Your task to perform on an android device: open app "LinkedIn" Image 0: 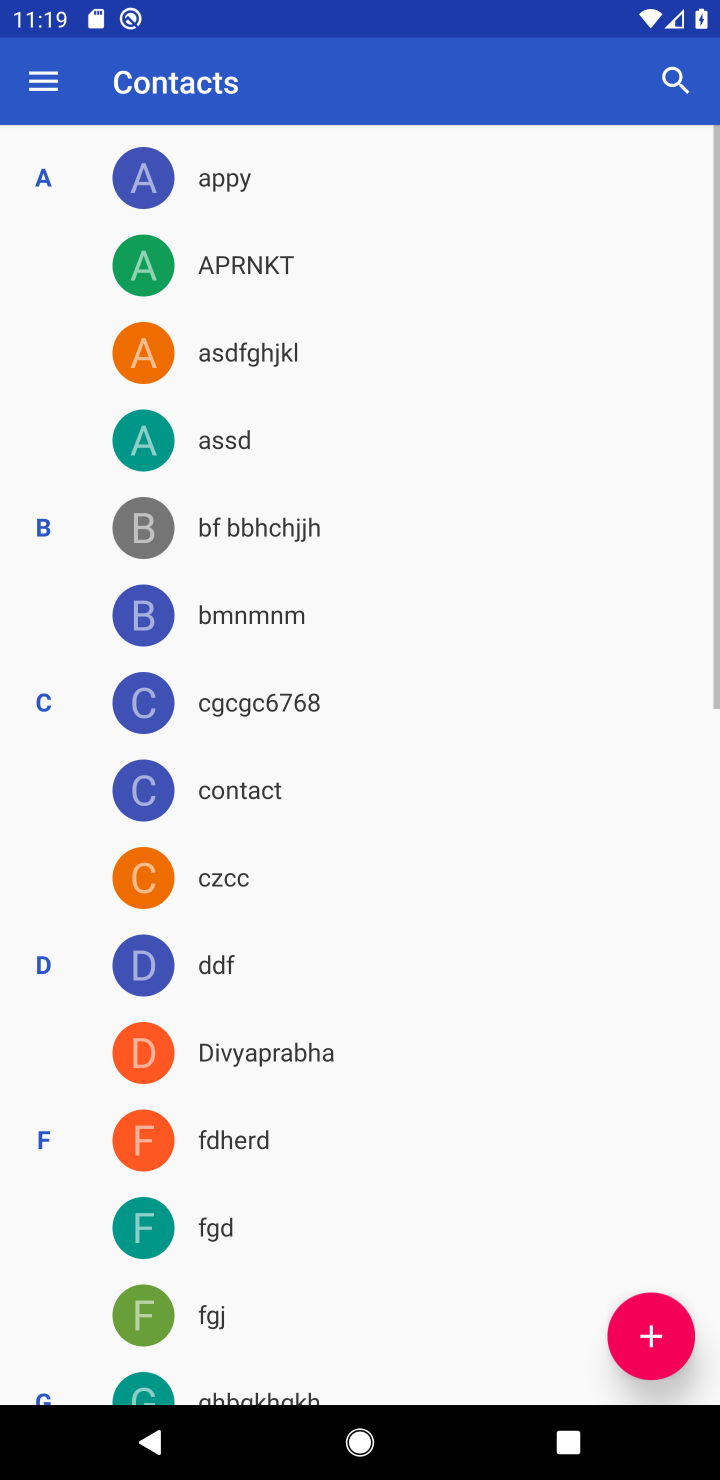
Step 0: press home button
Your task to perform on an android device: open app "LinkedIn" Image 1: 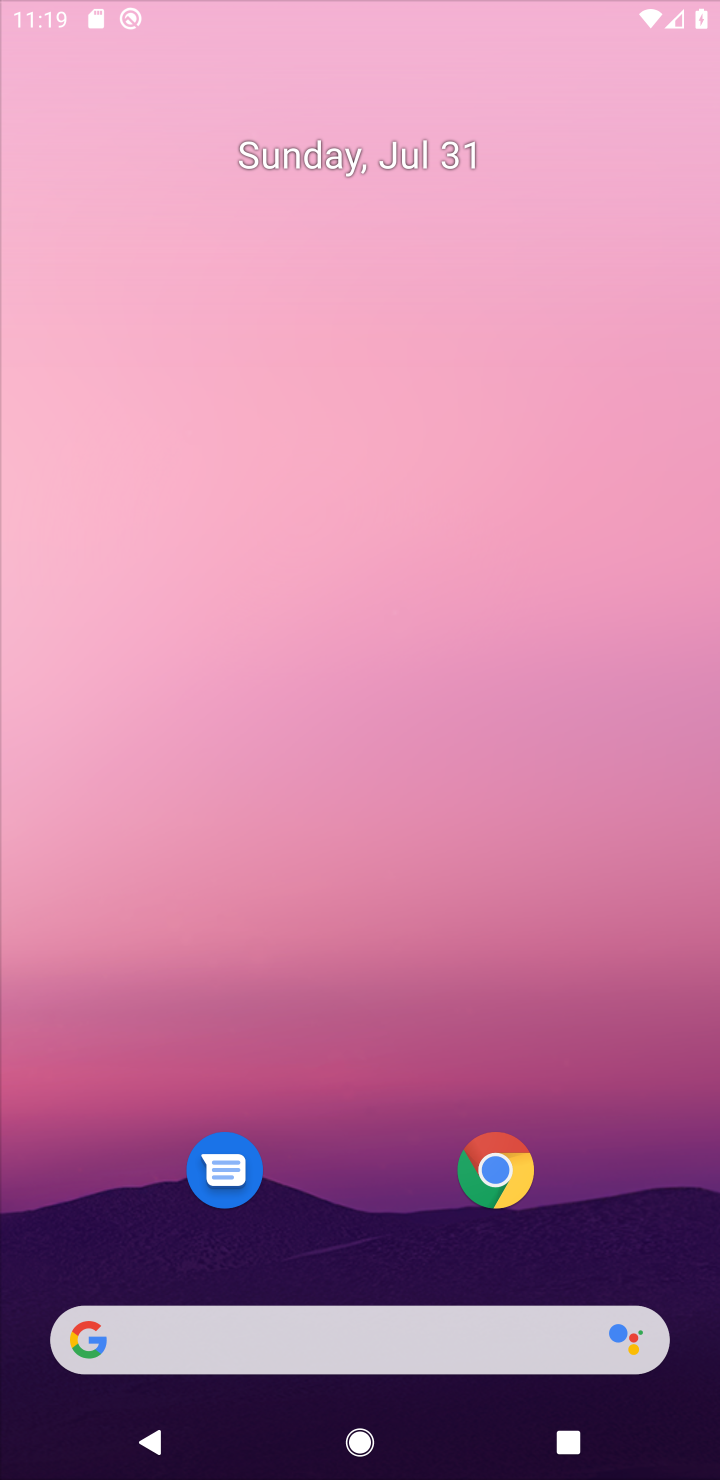
Step 1: drag from (701, 1308) to (375, 35)
Your task to perform on an android device: open app "LinkedIn" Image 2: 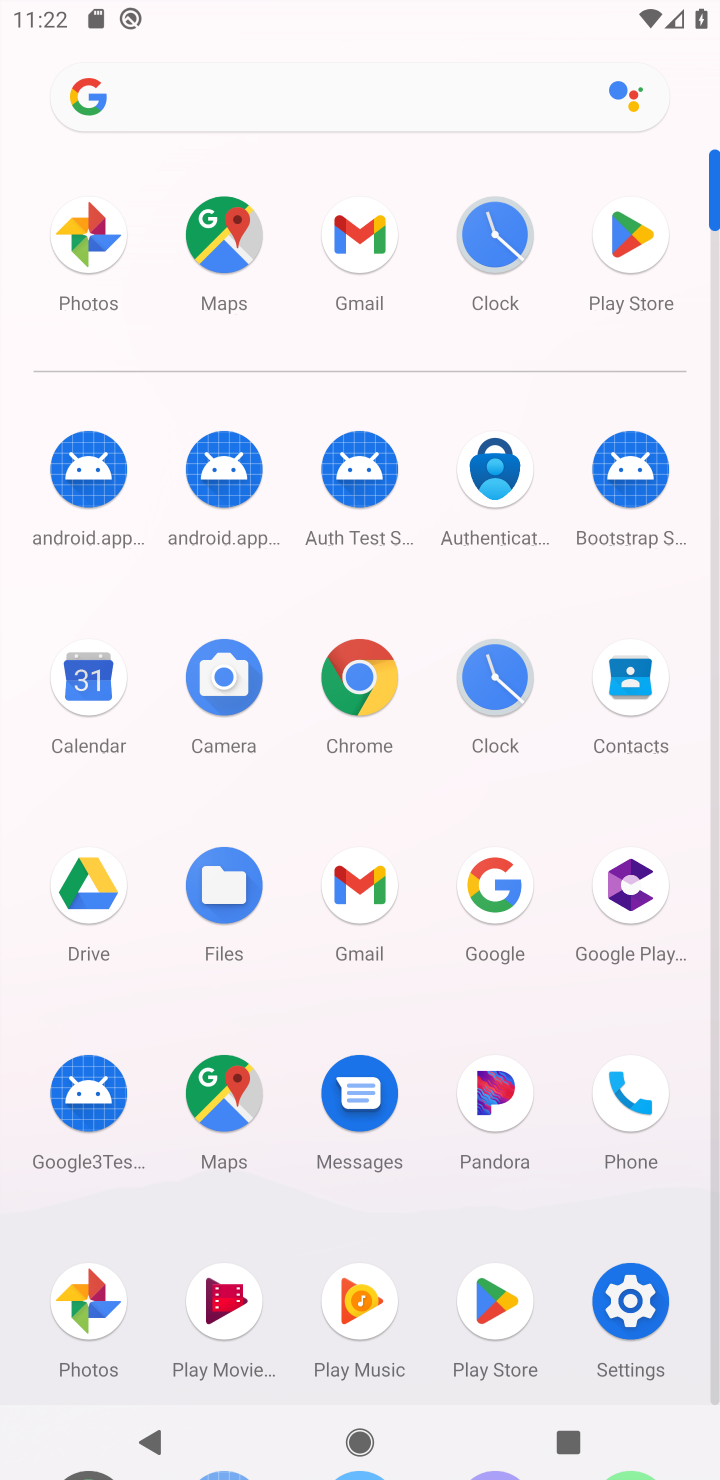
Step 2: click (615, 236)
Your task to perform on an android device: open app "LinkedIn" Image 3: 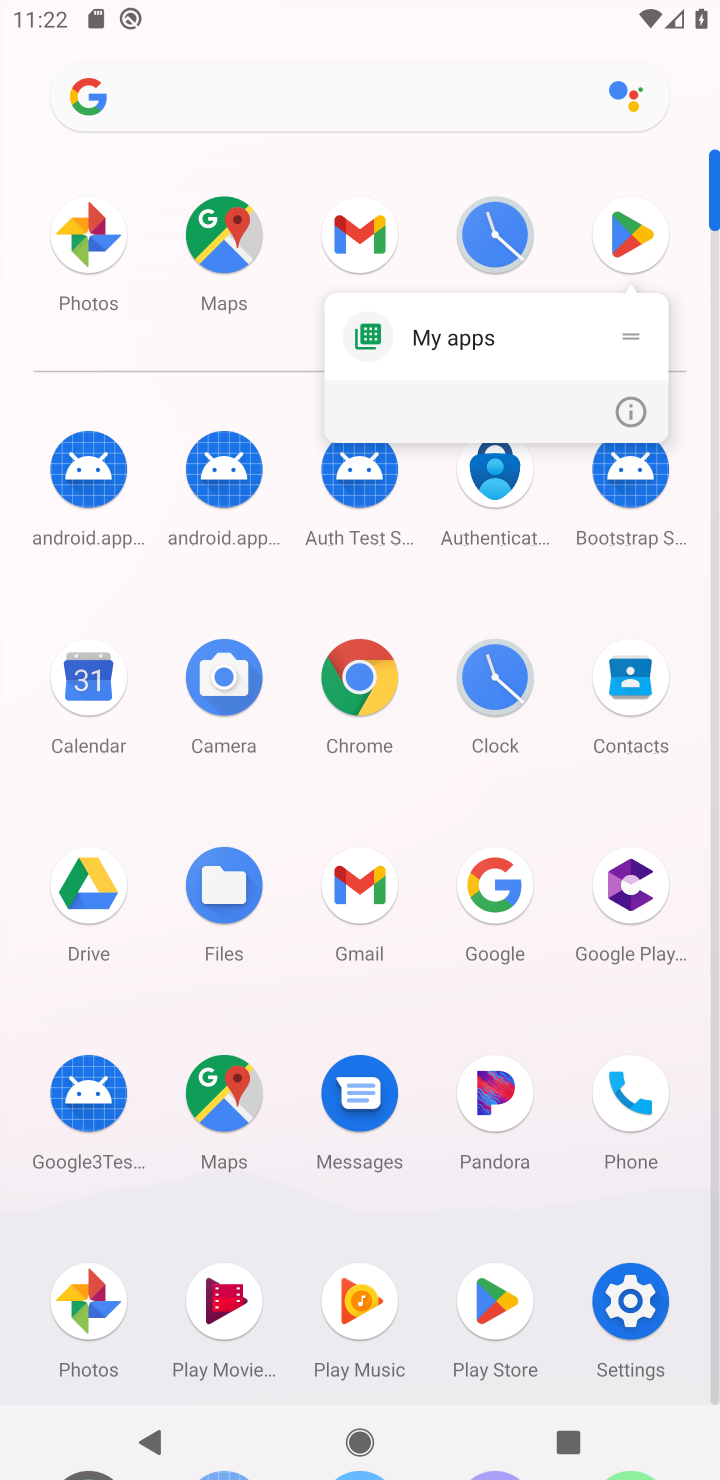
Step 3: click (619, 238)
Your task to perform on an android device: open app "LinkedIn" Image 4: 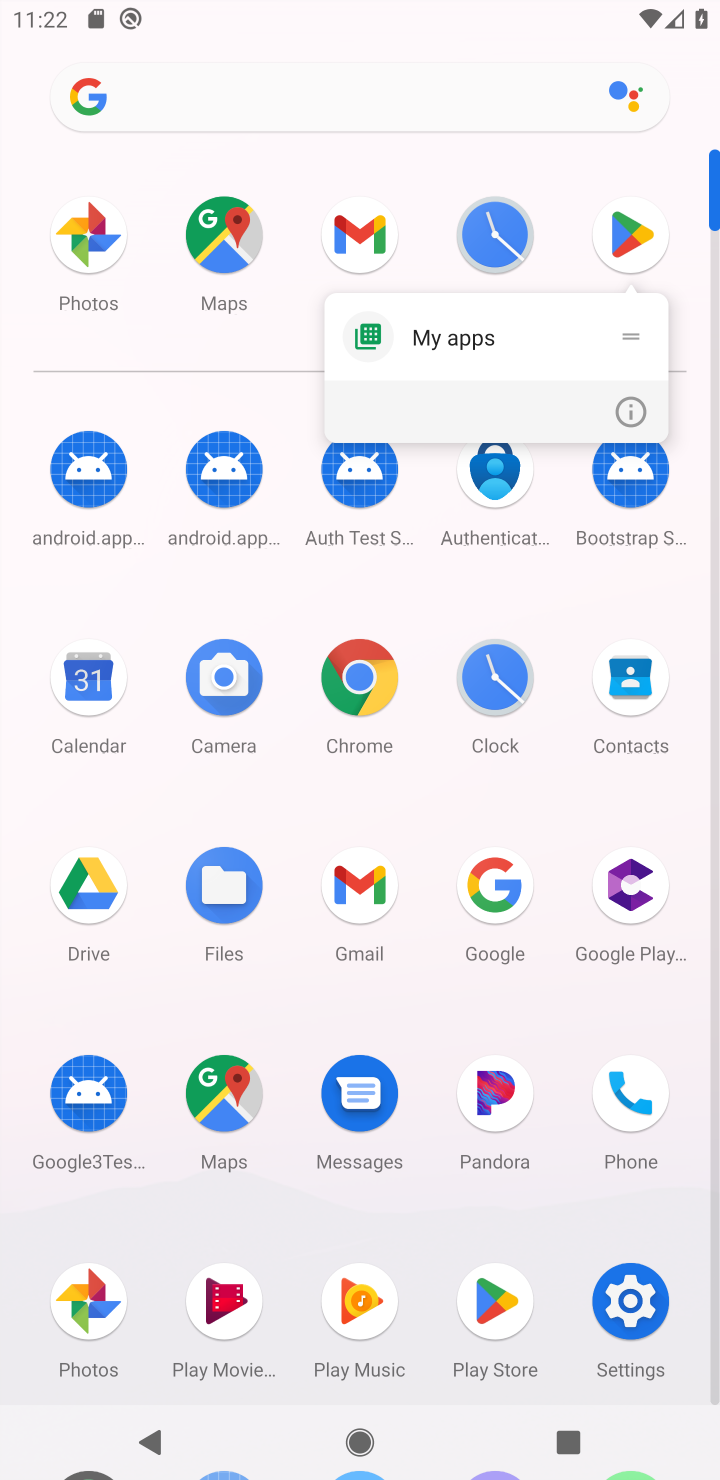
Step 4: click (606, 237)
Your task to perform on an android device: open app "LinkedIn" Image 5: 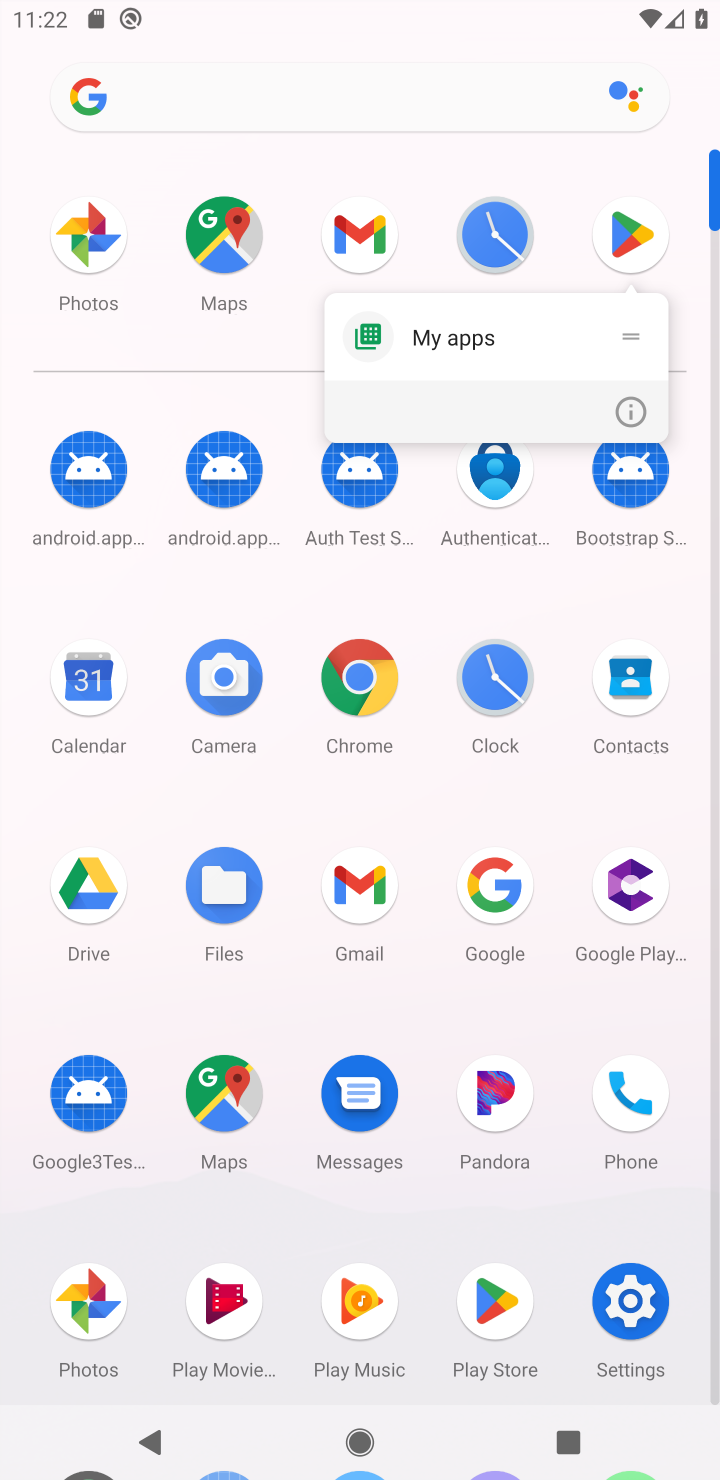
Step 5: click (606, 237)
Your task to perform on an android device: open app "LinkedIn" Image 6: 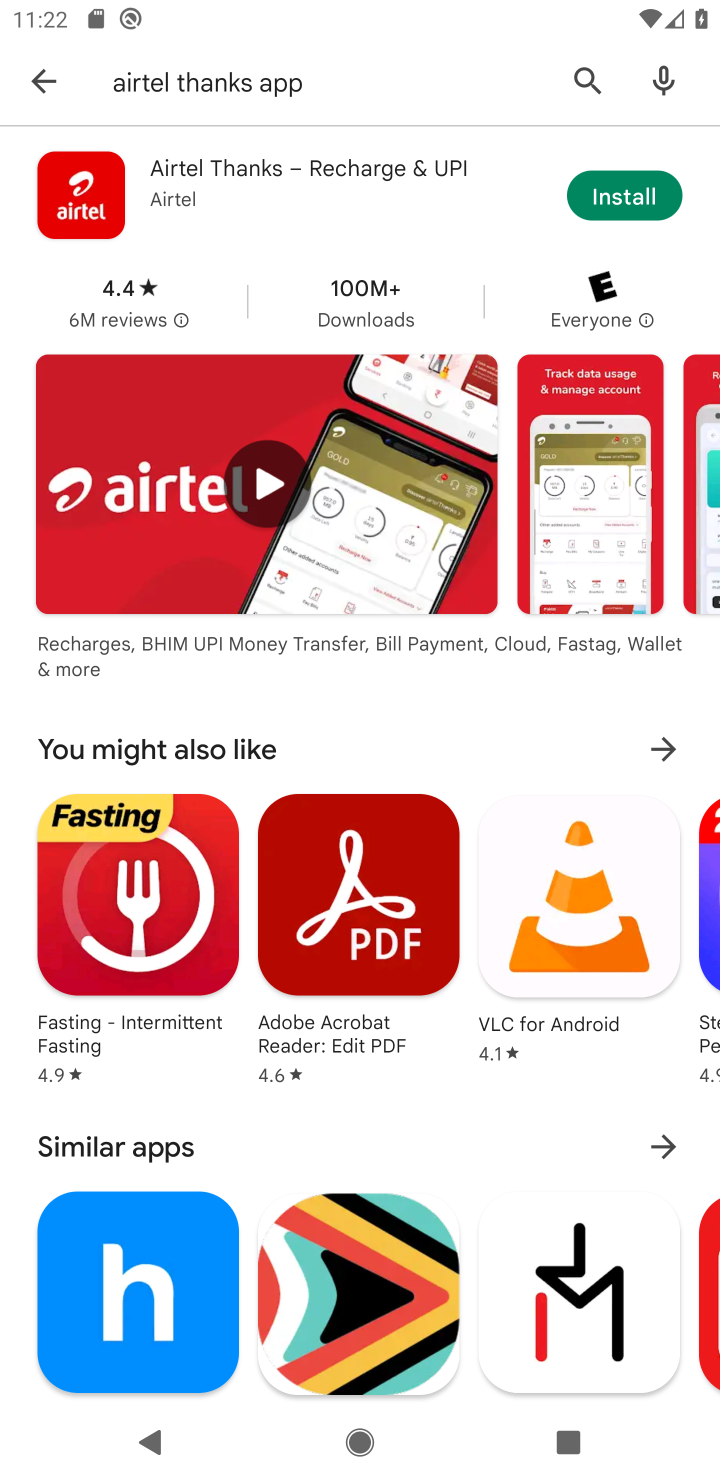
Step 6: press back button
Your task to perform on an android device: open app "LinkedIn" Image 7: 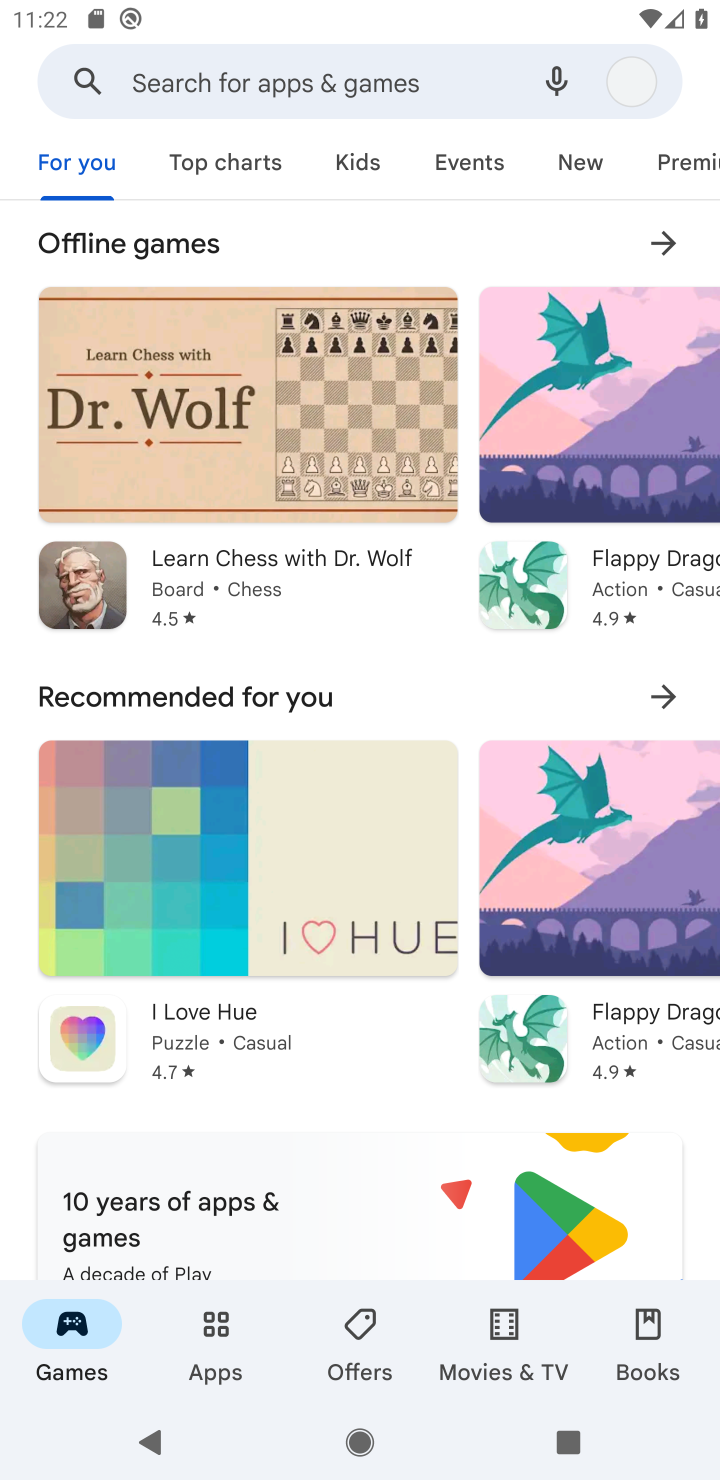
Step 7: click (220, 80)
Your task to perform on an android device: open app "LinkedIn" Image 8: 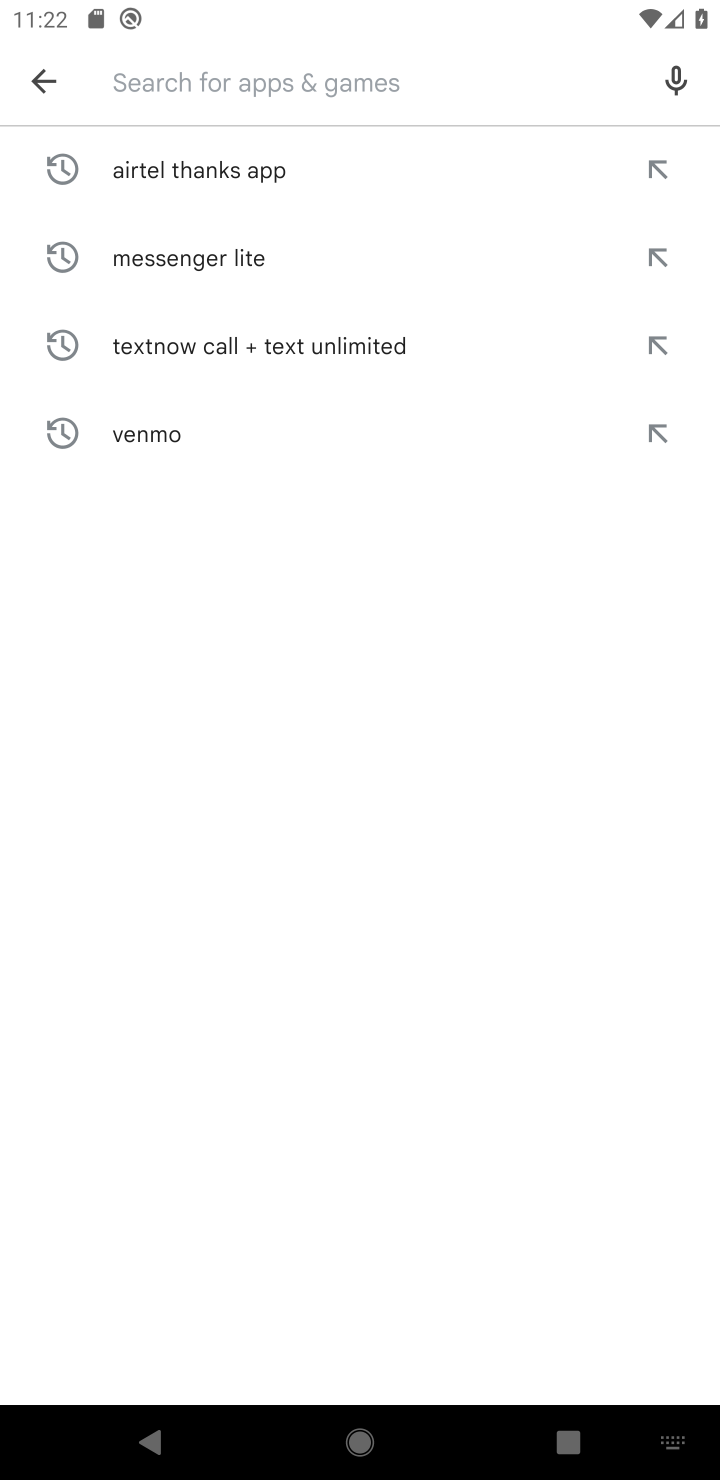
Step 8: type "LinkedIn"
Your task to perform on an android device: open app "LinkedIn" Image 9: 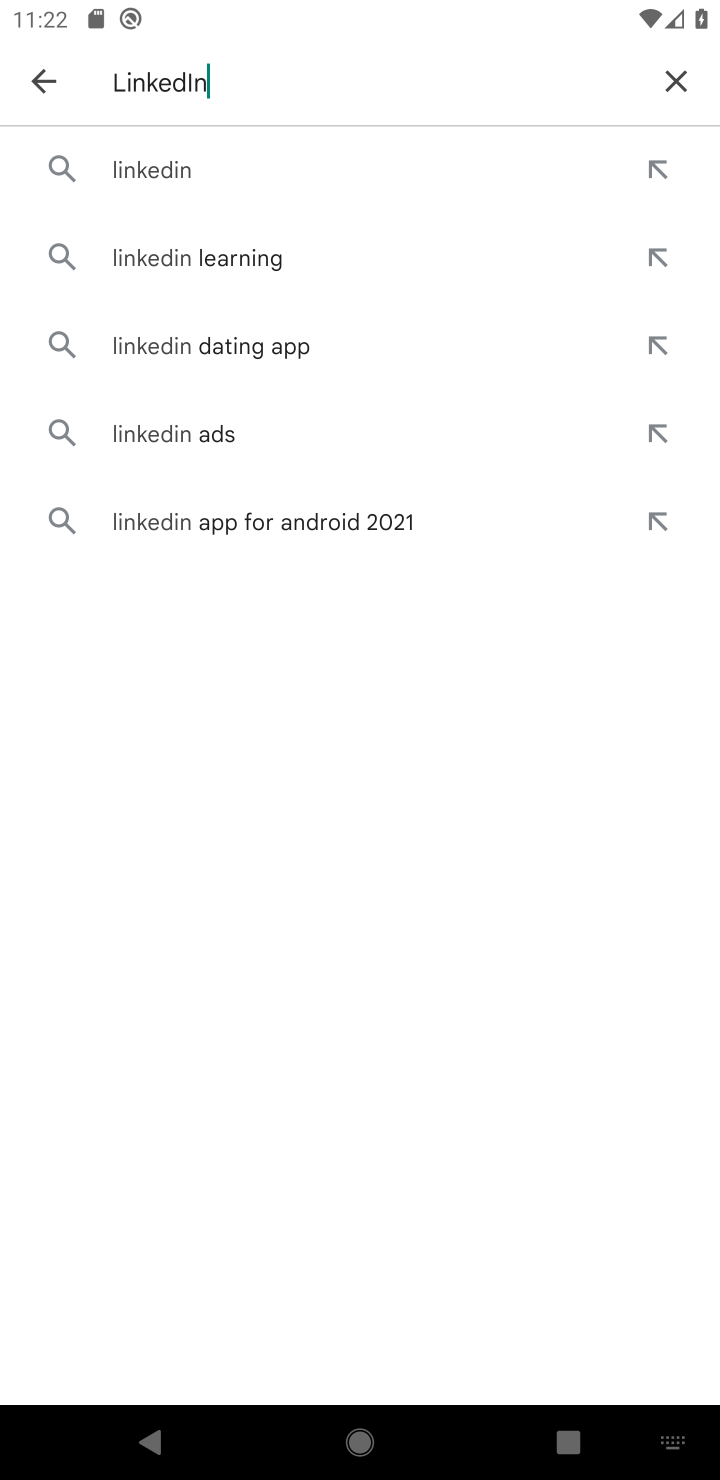
Step 9: click (177, 173)
Your task to perform on an android device: open app "LinkedIn" Image 10: 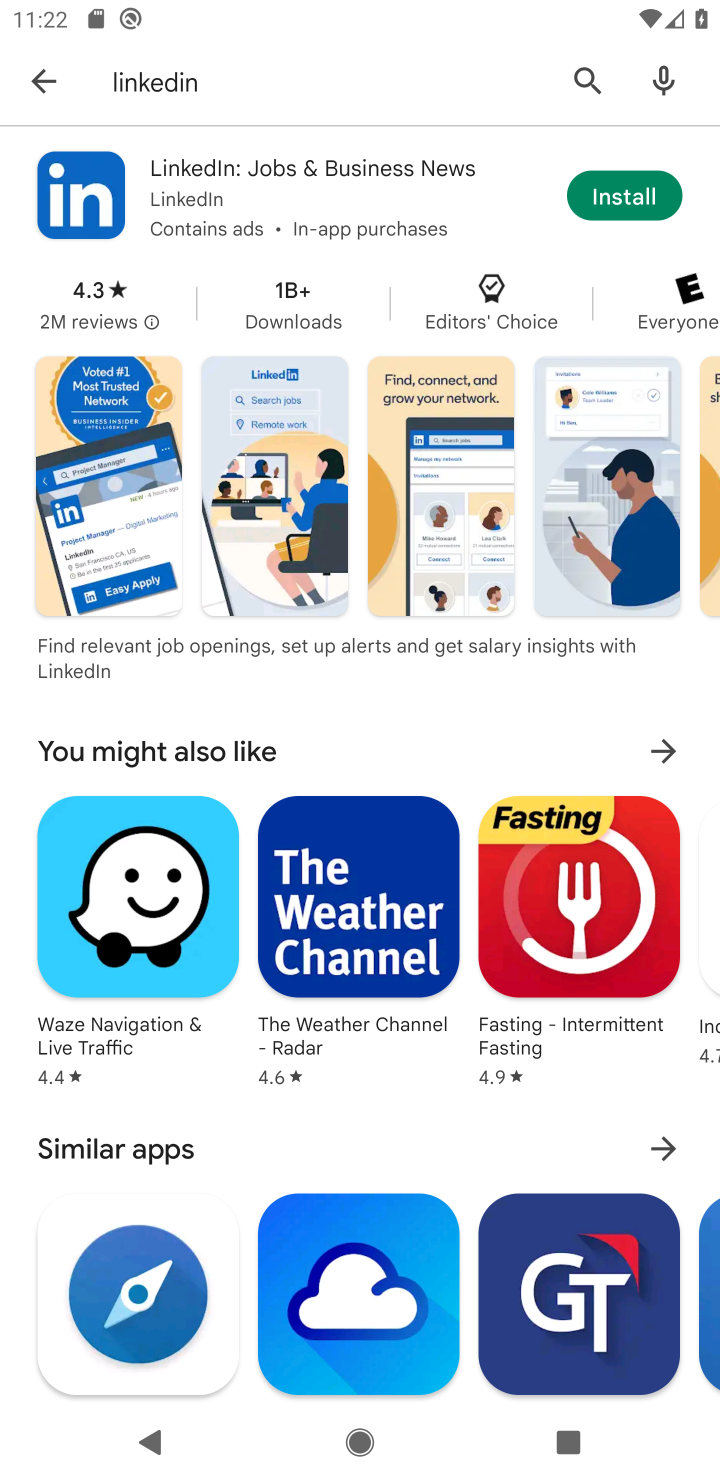
Step 10: task complete